Your task to perform on an android device: Open the calendar and show me this week's events Image 0: 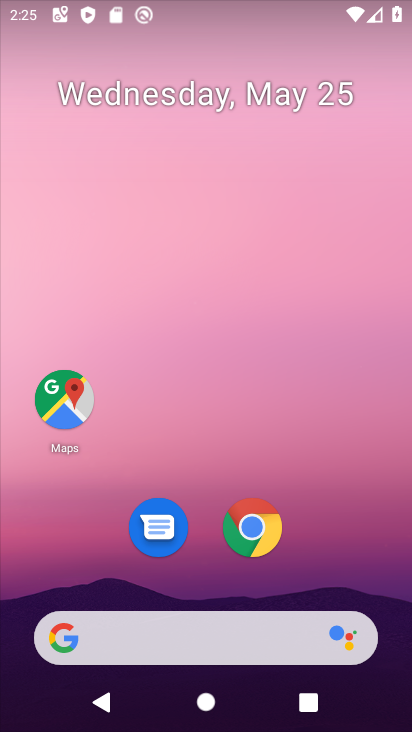
Step 0: drag from (225, 537) to (284, 292)
Your task to perform on an android device: Open the calendar and show me this week's events Image 1: 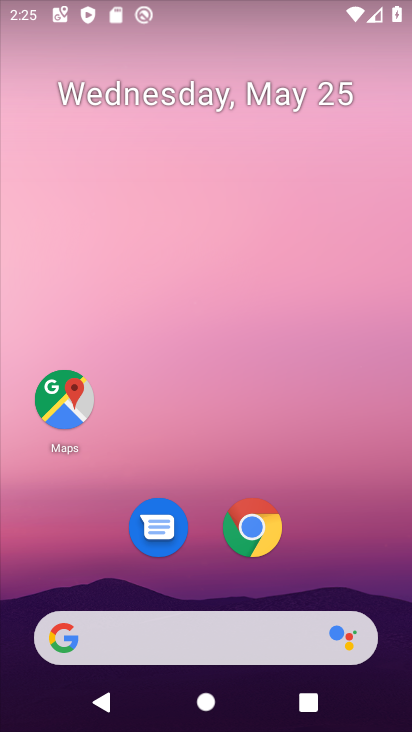
Step 1: drag from (215, 540) to (232, 186)
Your task to perform on an android device: Open the calendar and show me this week's events Image 2: 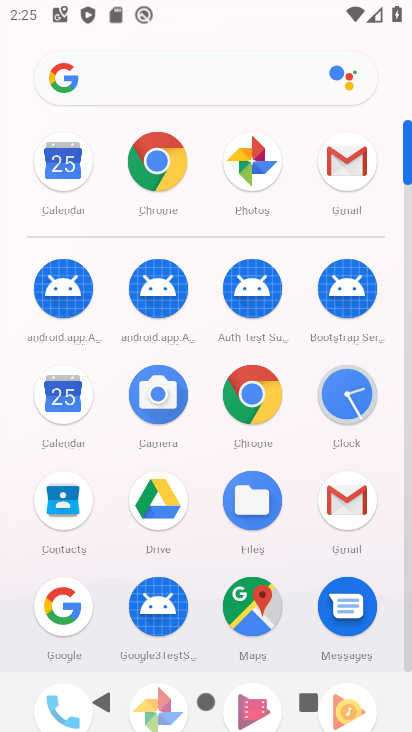
Step 2: click (55, 402)
Your task to perform on an android device: Open the calendar and show me this week's events Image 3: 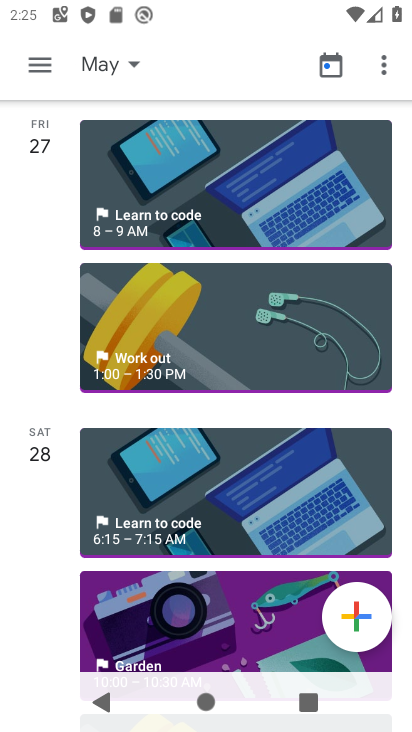
Step 3: click (110, 71)
Your task to perform on an android device: Open the calendar and show me this week's events Image 4: 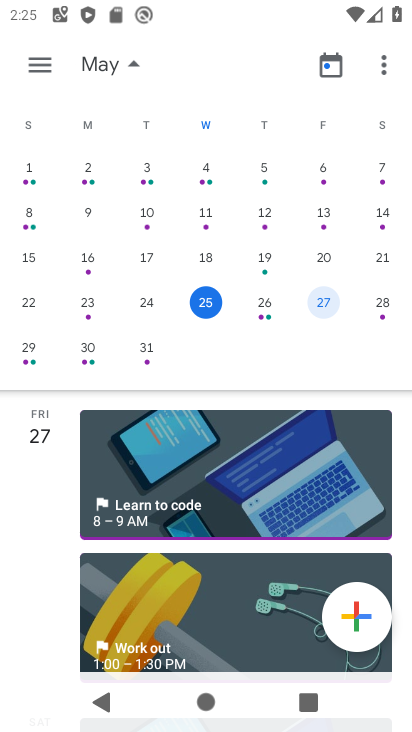
Step 4: click (375, 299)
Your task to perform on an android device: Open the calendar and show me this week's events Image 5: 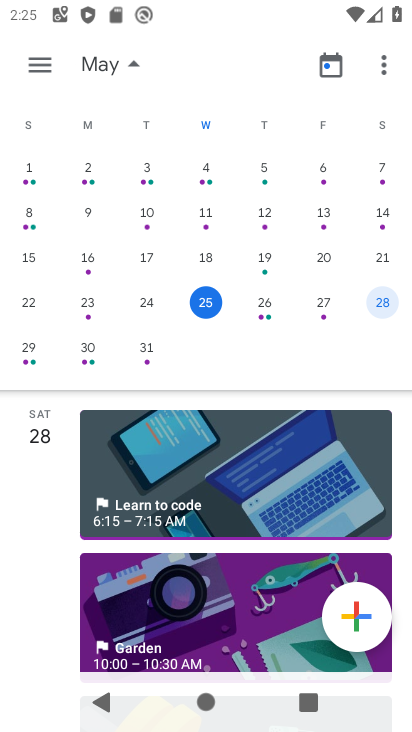
Step 5: task complete